Your task to perform on an android device: add a contact in the contacts app Image 0: 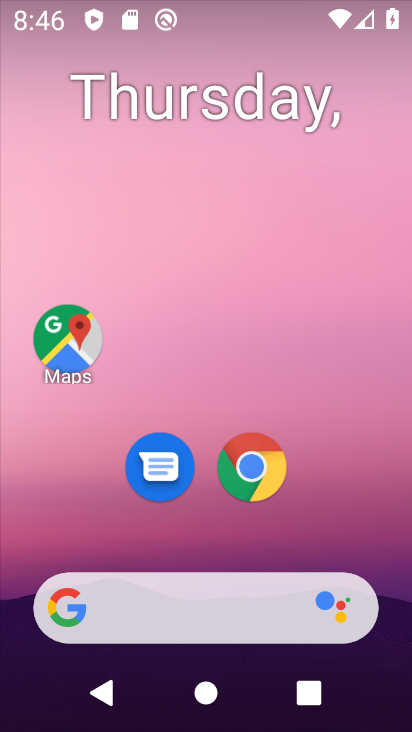
Step 0: drag from (385, 154) to (368, 20)
Your task to perform on an android device: add a contact in the contacts app Image 1: 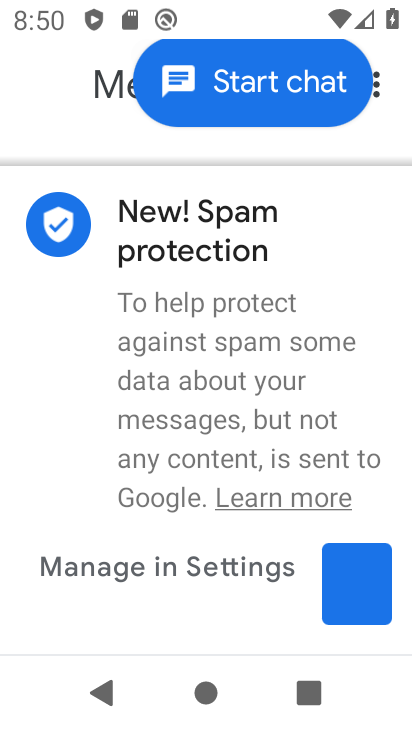
Step 1: press home button
Your task to perform on an android device: add a contact in the contacts app Image 2: 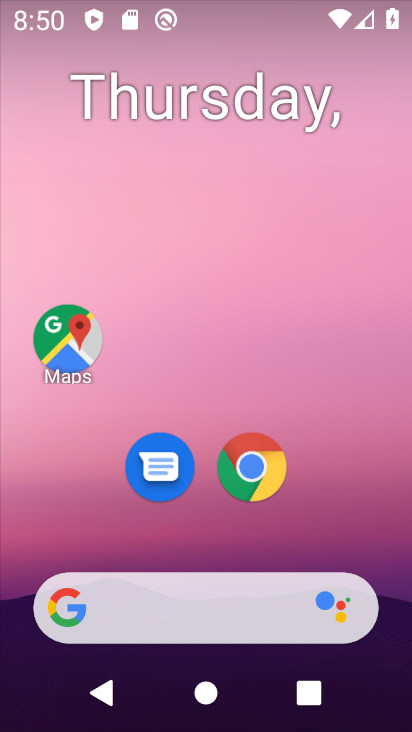
Step 2: drag from (380, 497) to (410, 97)
Your task to perform on an android device: add a contact in the contacts app Image 3: 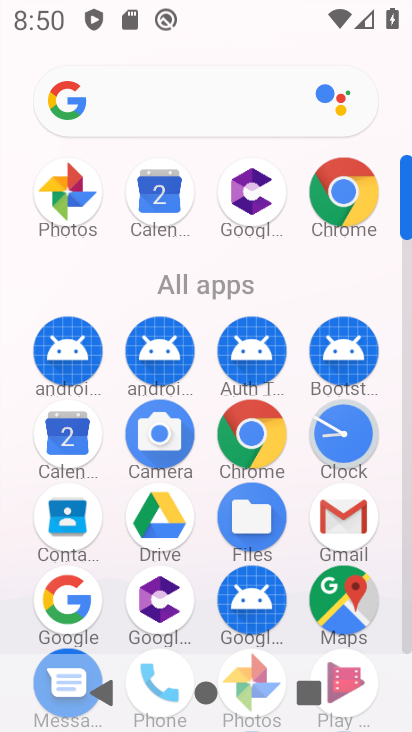
Step 3: click (49, 516)
Your task to perform on an android device: add a contact in the contacts app Image 4: 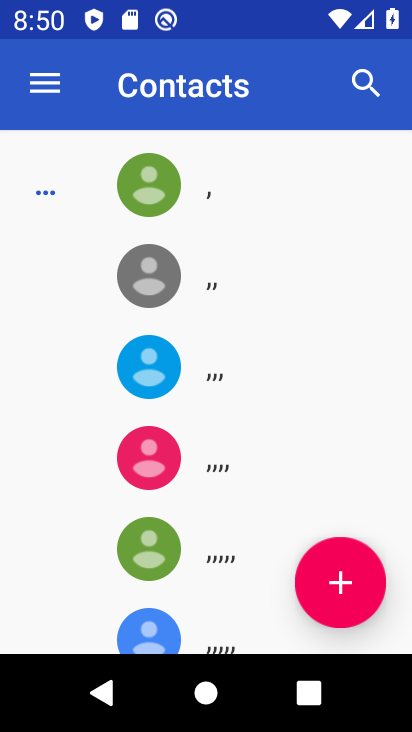
Step 4: click (365, 597)
Your task to perform on an android device: add a contact in the contacts app Image 5: 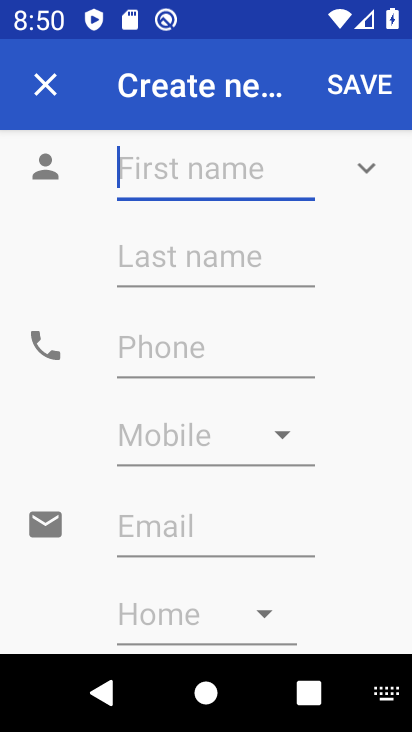
Step 5: type "ghhg"
Your task to perform on an android device: add a contact in the contacts app Image 6: 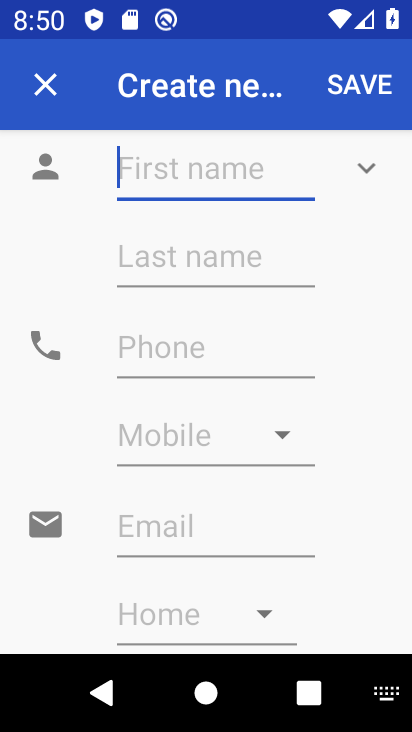
Step 6: click (229, 360)
Your task to perform on an android device: add a contact in the contacts app Image 7: 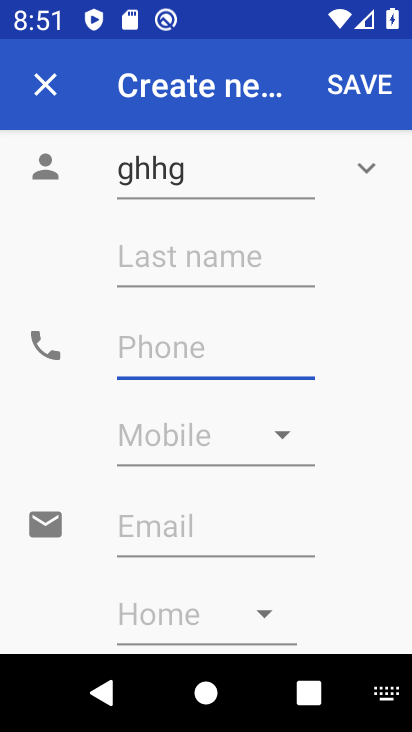
Step 7: type "55555555"
Your task to perform on an android device: add a contact in the contacts app Image 8: 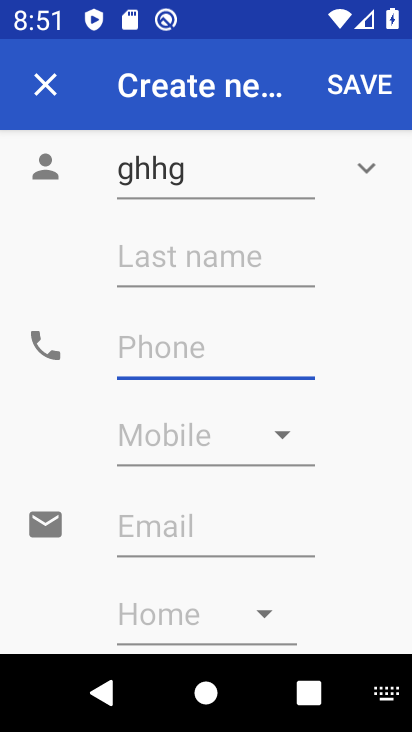
Step 8: click (368, 91)
Your task to perform on an android device: add a contact in the contacts app Image 9: 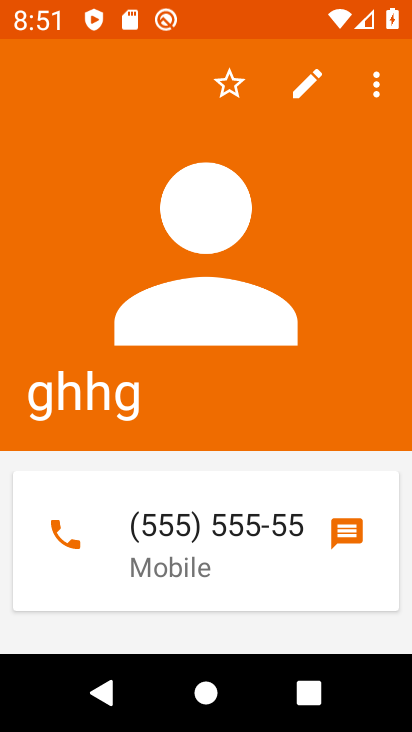
Step 9: task complete